Your task to perform on an android device: Go to notification settings Image 0: 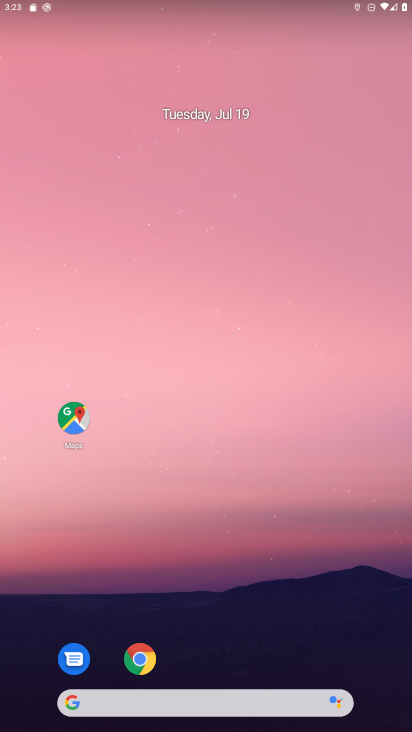
Step 0: drag from (202, 642) to (207, 31)
Your task to perform on an android device: Go to notification settings Image 1: 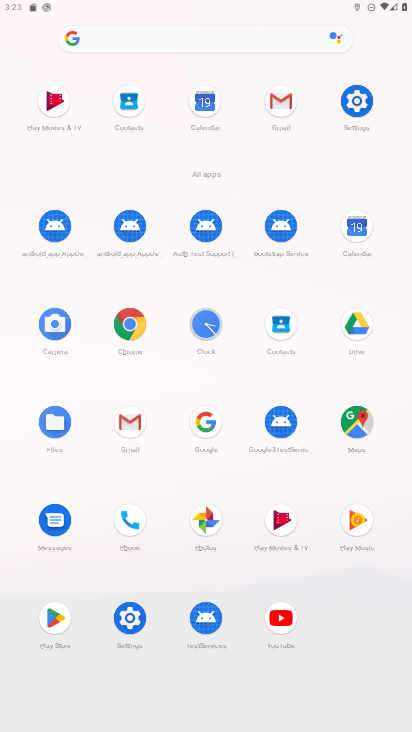
Step 1: click (355, 99)
Your task to perform on an android device: Go to notification settings Image 2: 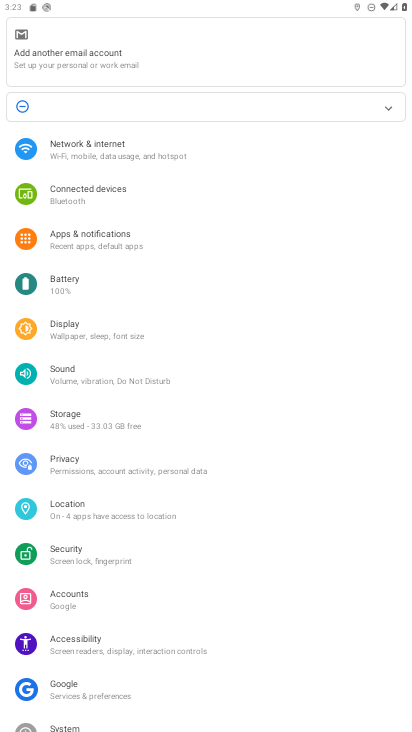
Step 2: click (120, 235)
Your task to perform on an android device: Go to notification settings Image 3: 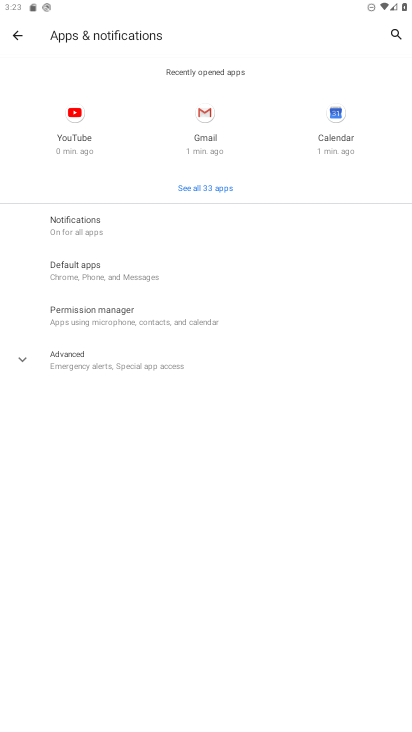
Step 3: click (102, 230)
Your task to perform on an android device: Go to notification settings Image 4: 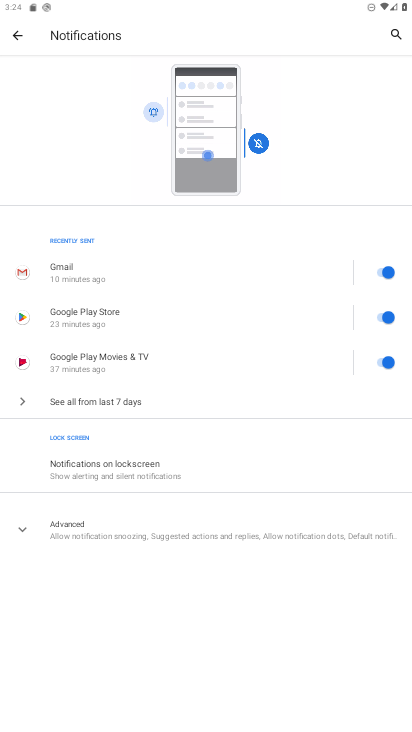
Step 4: click (153, 401)
Your task to perform on an android device: Go to notification settings Image 5: 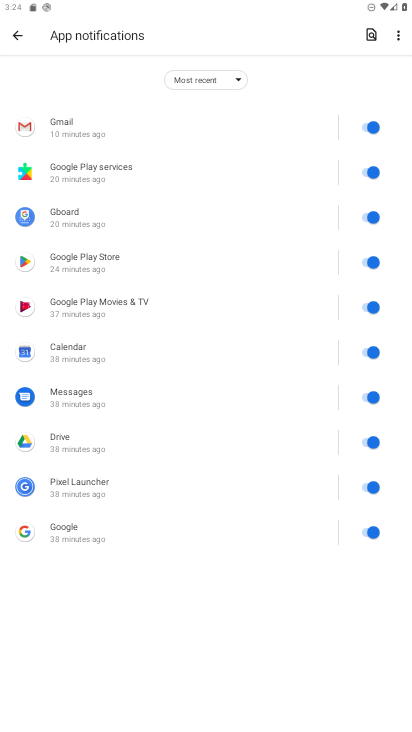
Step 5: click (373, 131)
Your task to perform on an android device: Go to notification settings Image 6: 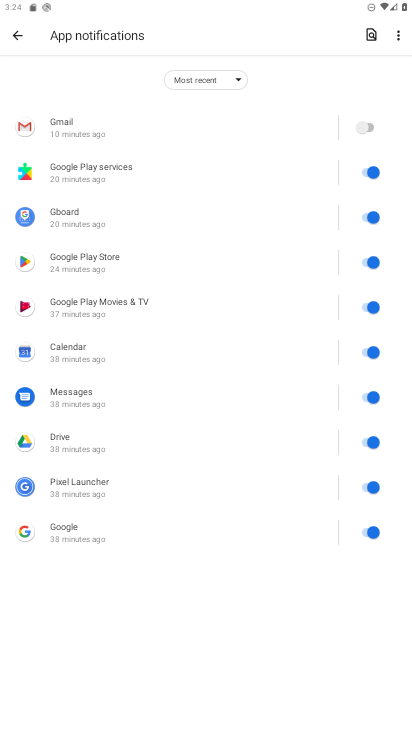
Step 6: click (373, 172)
Your task to perform on an android device: Go to notification settings Image 7: 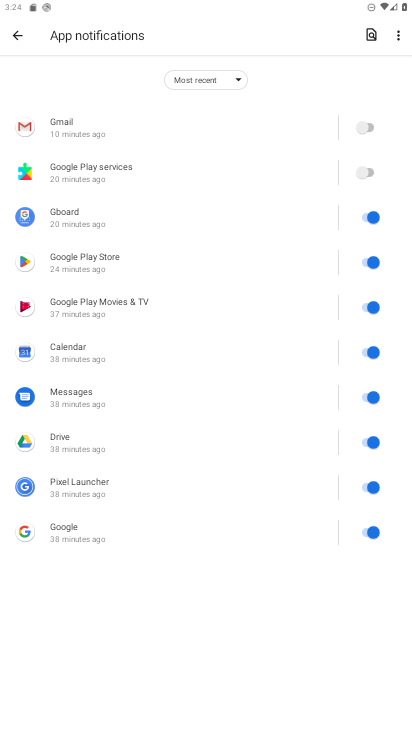
Step 7: click (372, 218)
Your task to perform on an android device: Go to notification settings Image 8: 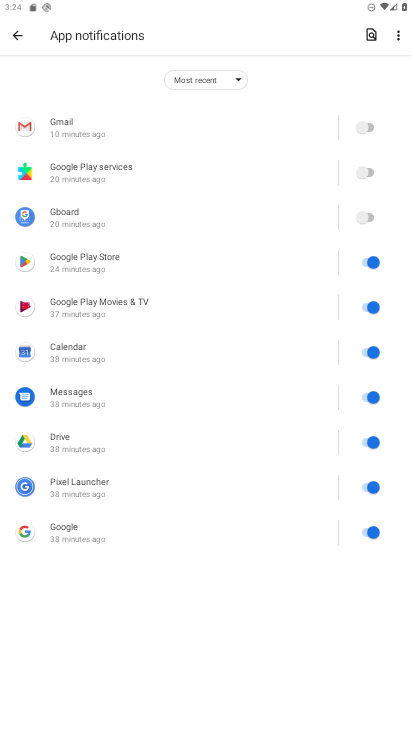
Step 8: click (373, 257)
Your task to perform on an android device: Go to notification settings Image 9: 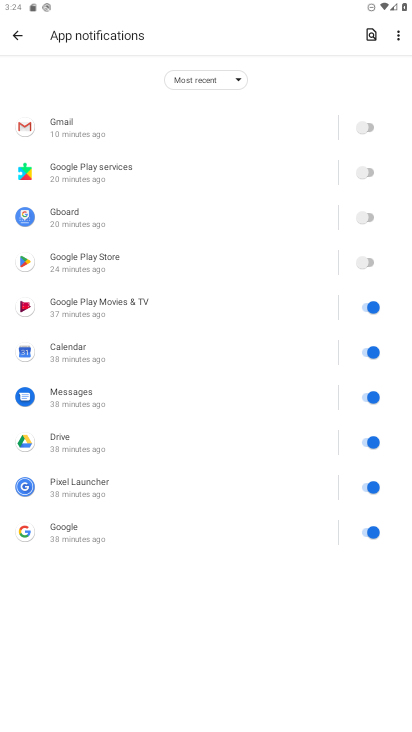
Step 9: click (373, 305)
Your task to perform on an android device: Go to notification settings Image 10: 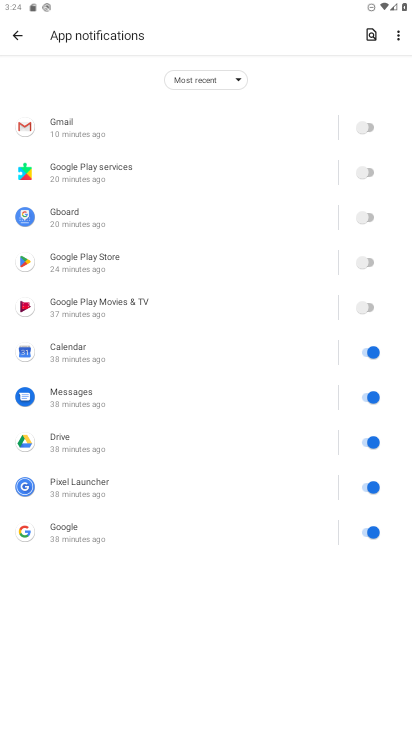
Step 10: click (373, 348)
Your task to perform on an android device: Go to notification settings Image 11: 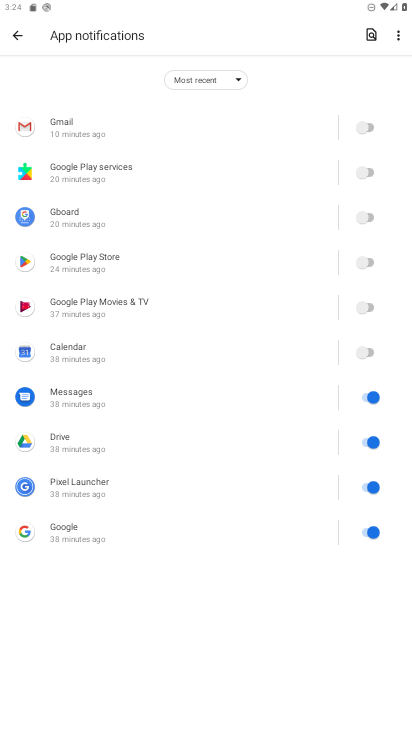
Step 11: click (373, 395)
Your task to perform on an android device: Go to notification settings Image 12: 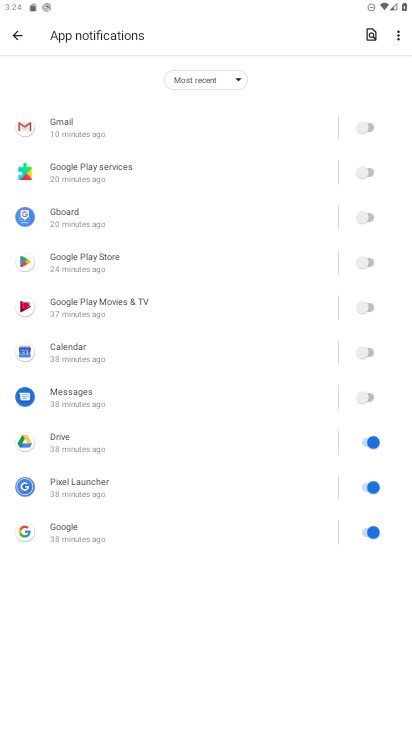
Step 12: click (371, 447)
Your task to perform on an android device: Go to notification settings Image 13: 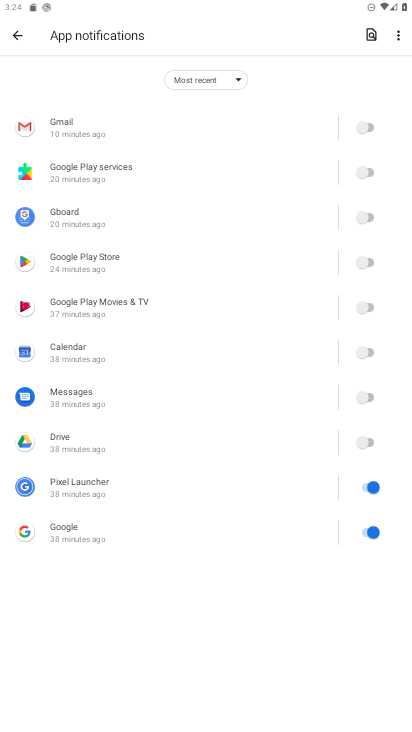
Step 13: click (370, 487)
Your task to perform on an android device: Go to notification settings Image 14: 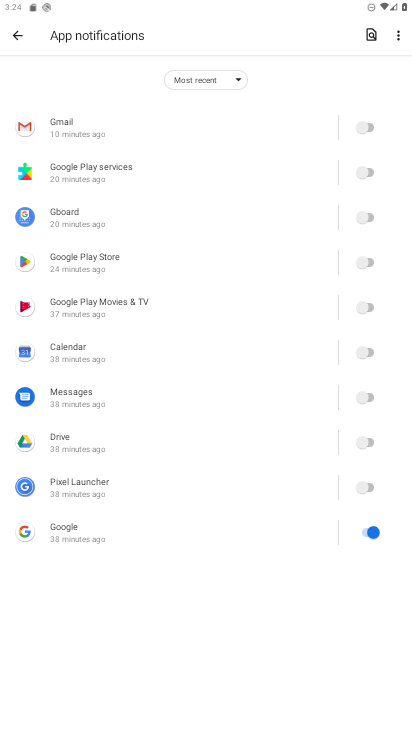
Step 14: click (370, 528)
Your task to perform on an android device: Go to notification settings Image 15: 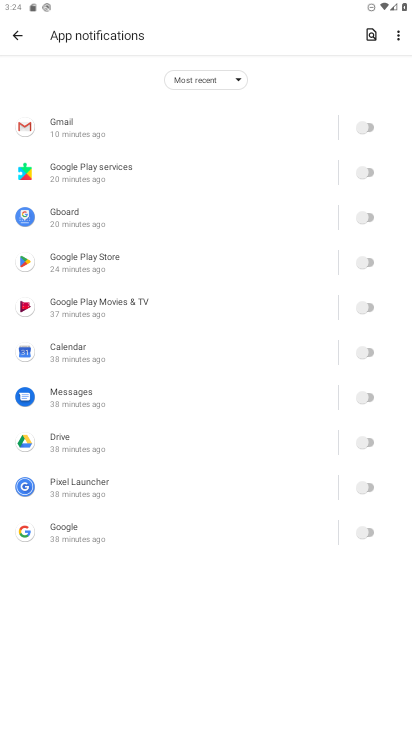
Step 15: click (15, 32)
Your task to perform on an android device: Go to notification settings Image 16: 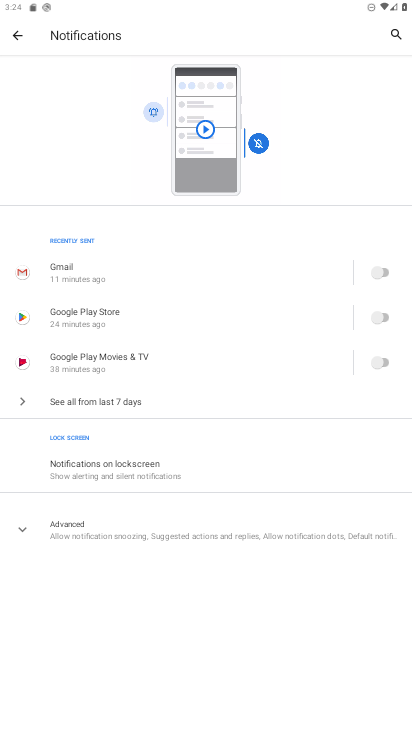
Step 16: click (96, 465)
Your task to perform on an android device: Go to notification settings Image 17: 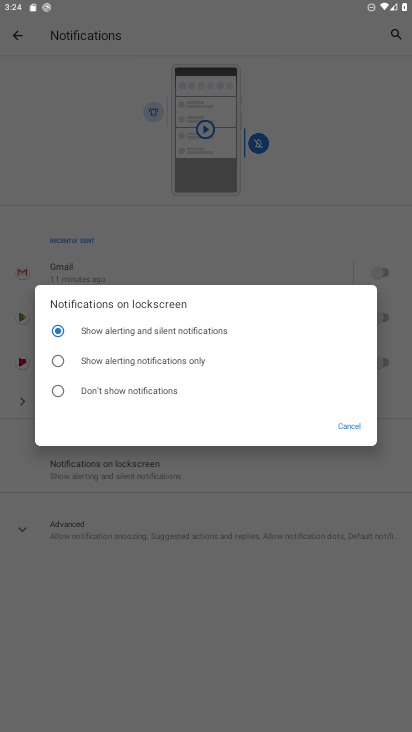
Step 17: click (185, 353)
Your task to perform on an android device: Go to notification settings Image 18: 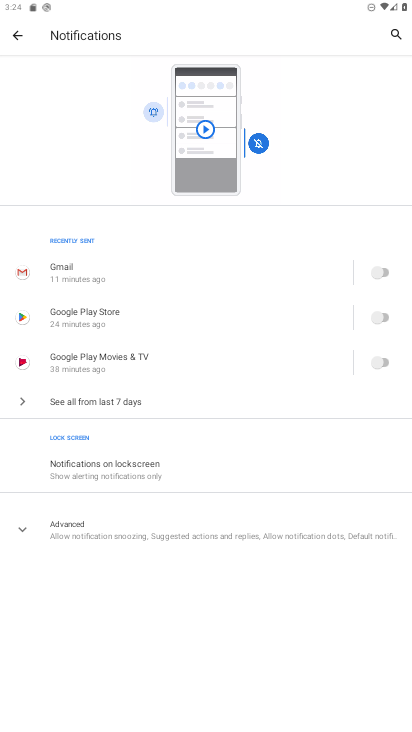
Step 18: click (82, 523)
Your task to perform on an android device: Go to notification settings Image 19: 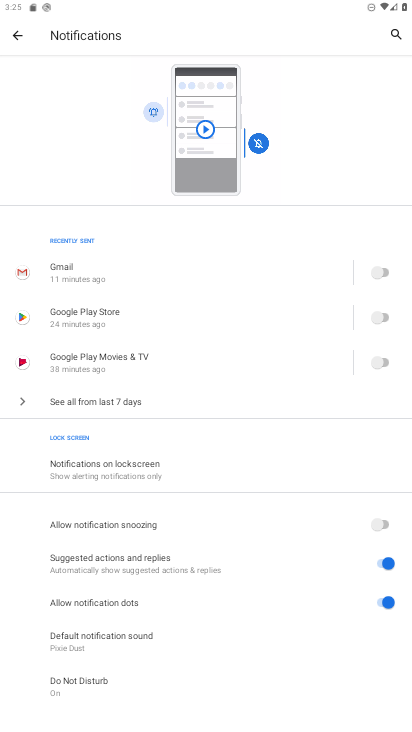
Step 19: click (386, 522)
Your task to perform on an android device: Go to notification settings Image 20: 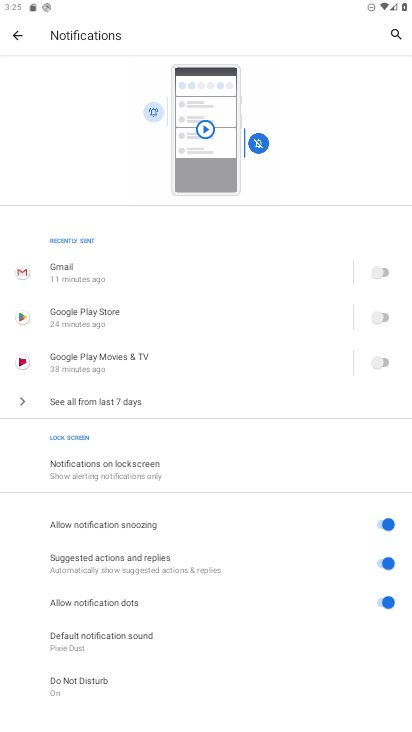
Step 20: click (390, 563)
Your task to perform on an android device: Go to notification settings Image 21: 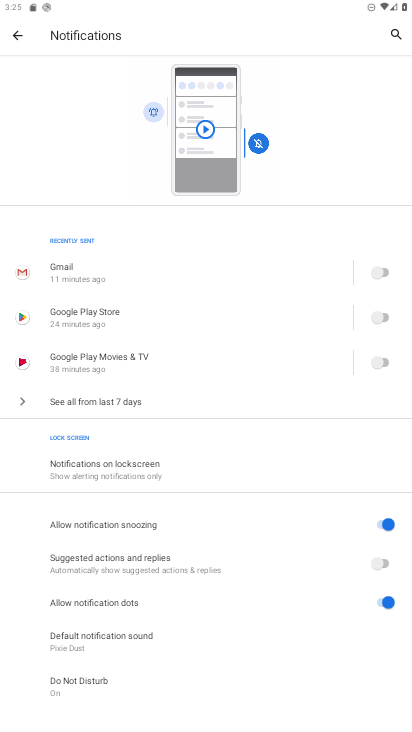
Step 21: click (390, 601)
Your task to perform on an android device: Go to notification settings Image 22: 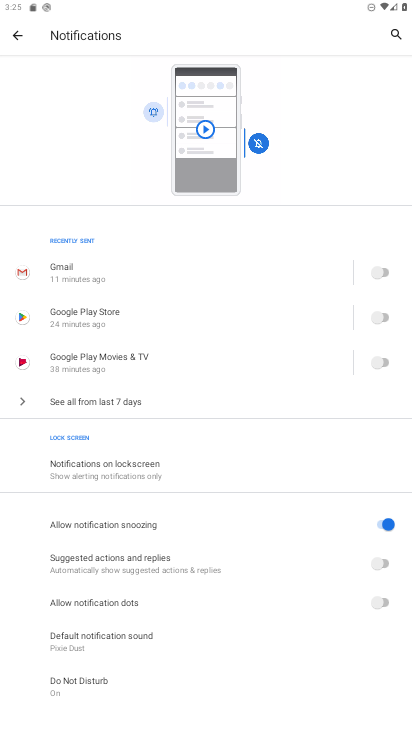
Step 22: task complete